Your task to perform on an android device: Set the phone to "Do not disturb". Image 0: 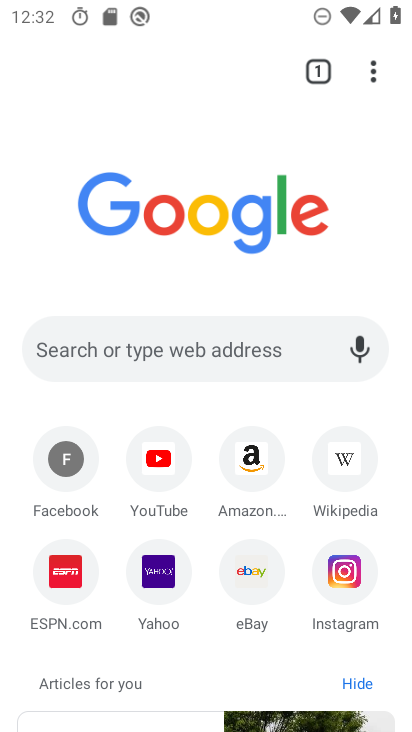
Step 0: press home button
Your task to perform on an android device: Set the phone to "Do not disturb". Image 1: 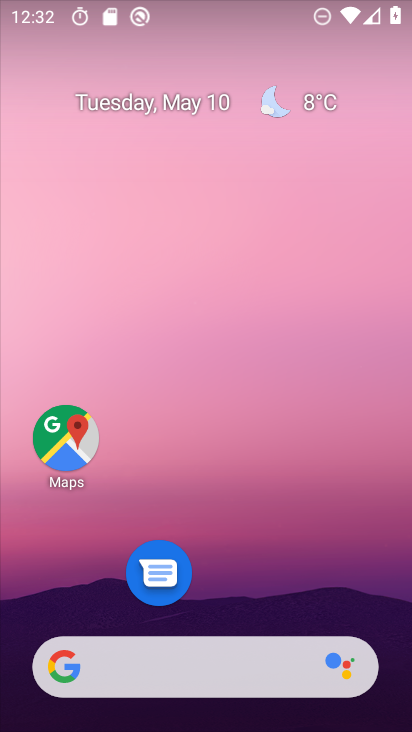
Step 1: drag from (213, 607) to (300, 11)
Your task to perform on an android device: Set the phone to "Do not disturb". Image 2: 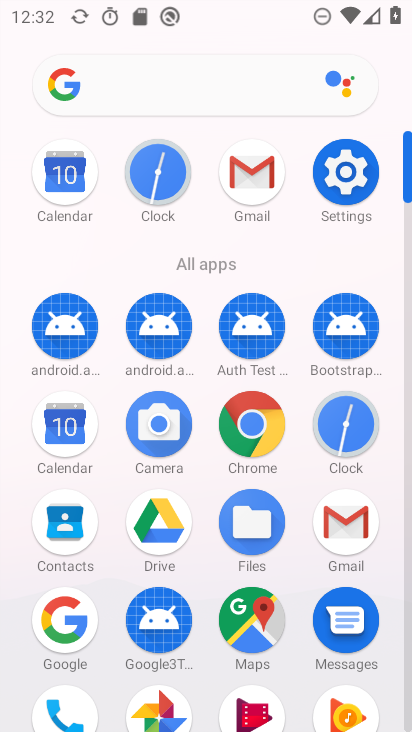
Step 2: click (352, 186)
Your task to perform on an android device: Set the phone to "Do not disturb". Image 3: 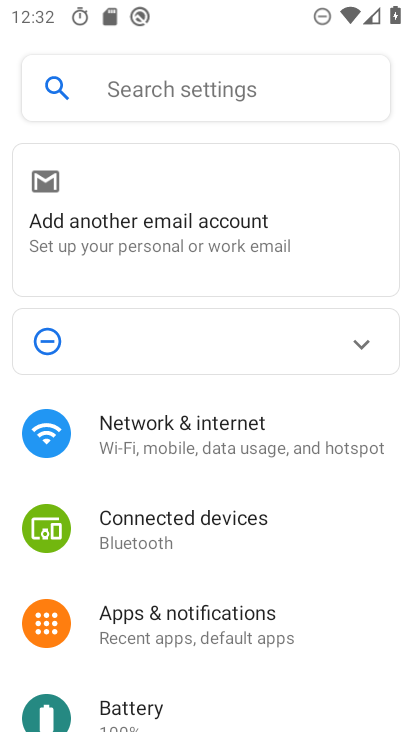
Step 3: drag from (189, 654) to (229, 387)
Your task to perform on an android device: Set the phone to "Do not disturb". Image 4: 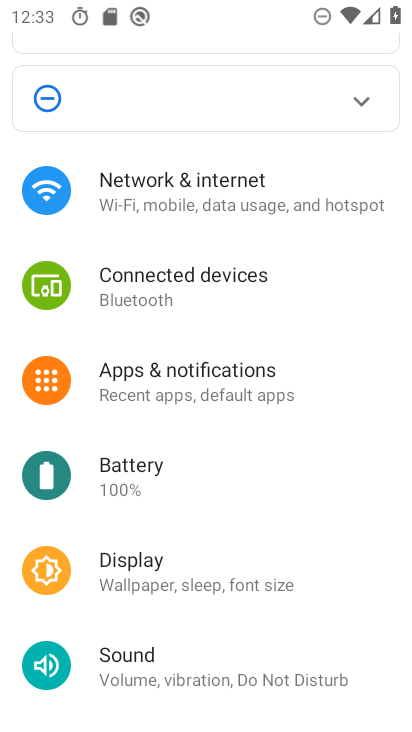
Step 4: click (143, 654)
Your task to perform on an android device: Set the phone to "Do not disturb". Image 5: 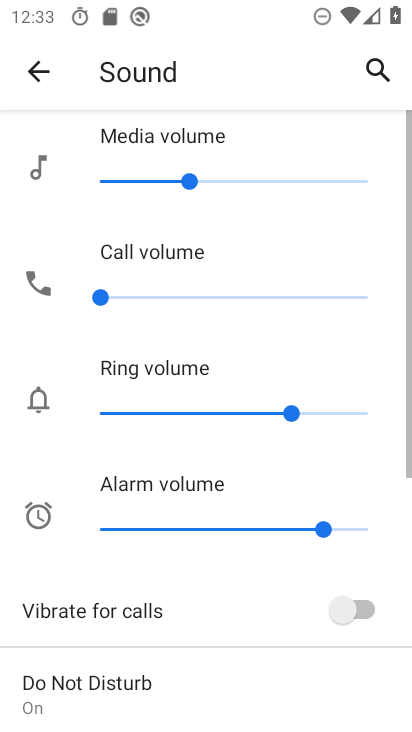
Step 5: drag from (178, 576) to (217, 299)
Your task to perform on an android device: Set the phone to "Do not disturb". Image 6: 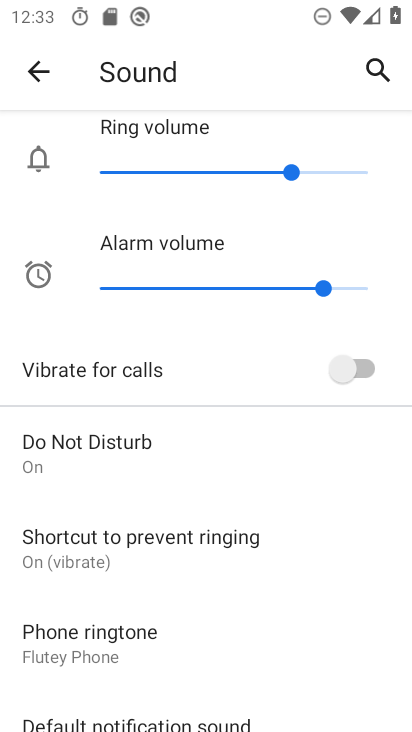
Step 6: click (138, 474)
Your task to perform on an android device: Set the phone to "Do not disturb". Image 7: 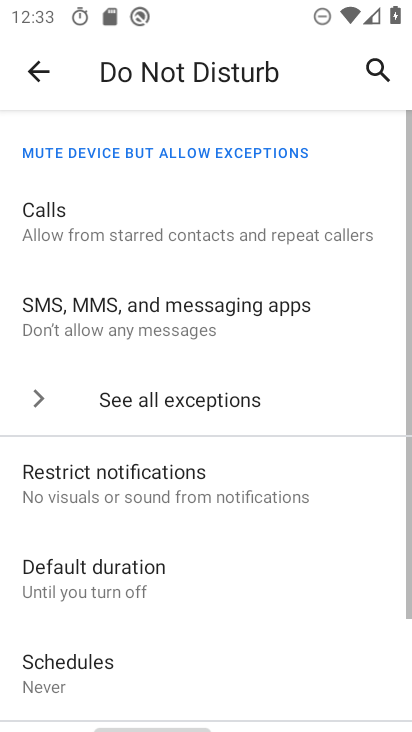
Step 7: task complete